Your task to perform on an android device: What is the news today? Image 0: 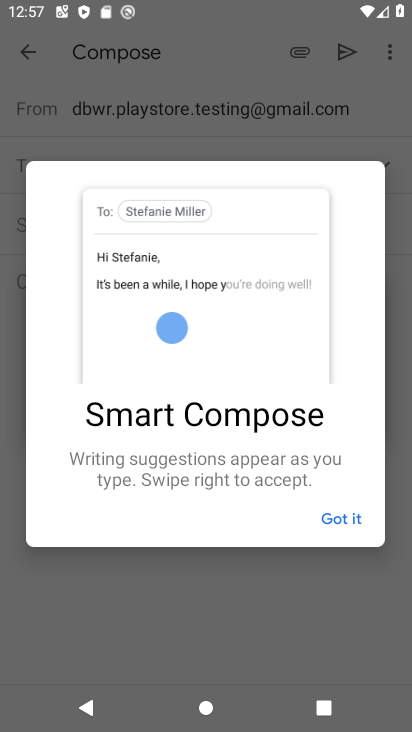
Step 0: press back button
Your task to perform on an android device: What is the news today? Image 1: 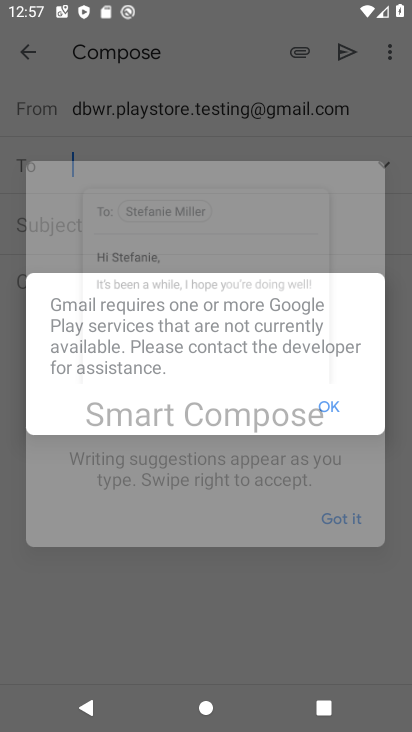
Step 1: task complete